Your task to perform on an android device: change text size in settings app Image 0: 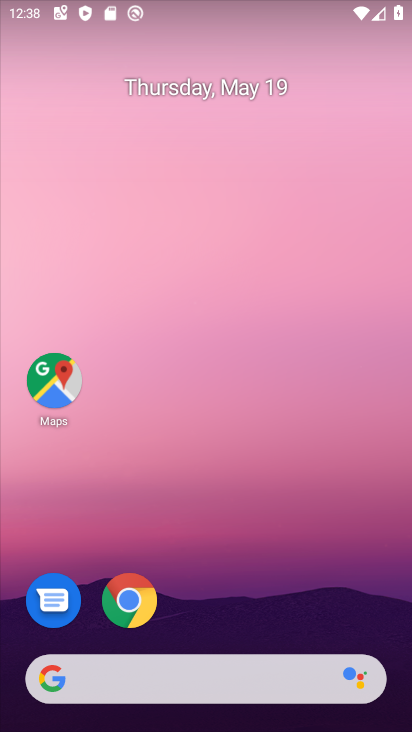
Step 0: drag from (274, 582) to (190, 174)
Your task to perform on an android device: change text size in settings app Image 1: 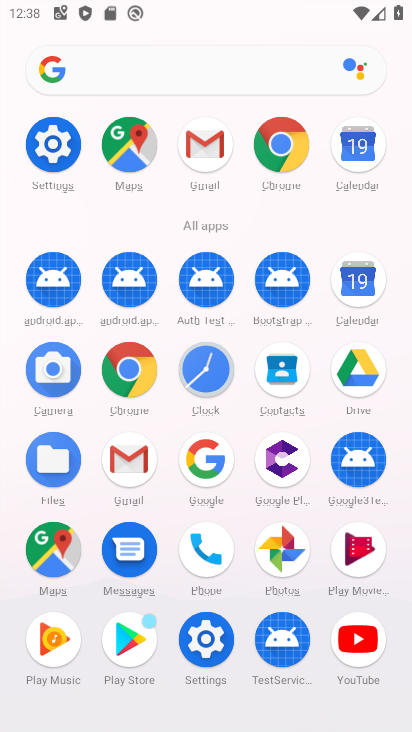
Step 1: click (66, 196)
Your task to perform on an android device: change text size in settings app Image 2: 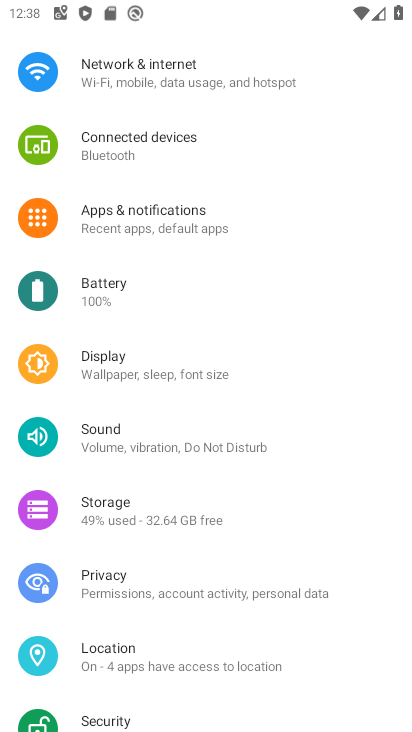
Step 2: drag from (132, 559) to (121, 326)
Your task to perform on an android device: change text size in settings app Image 3: 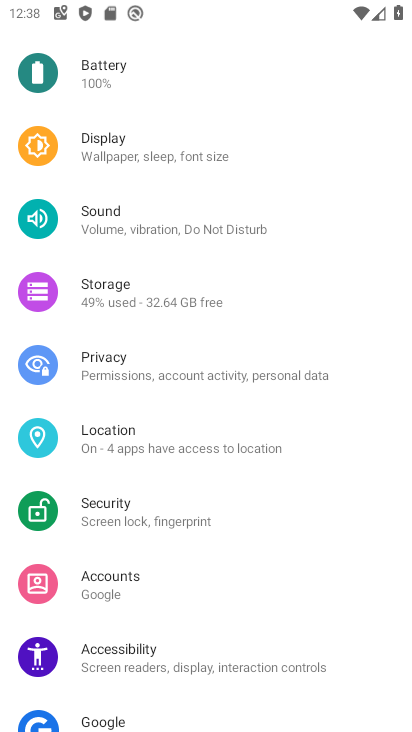
Step 3: click (132, 584)
Your task to perform on an android device: change text size in settings app Image 4: 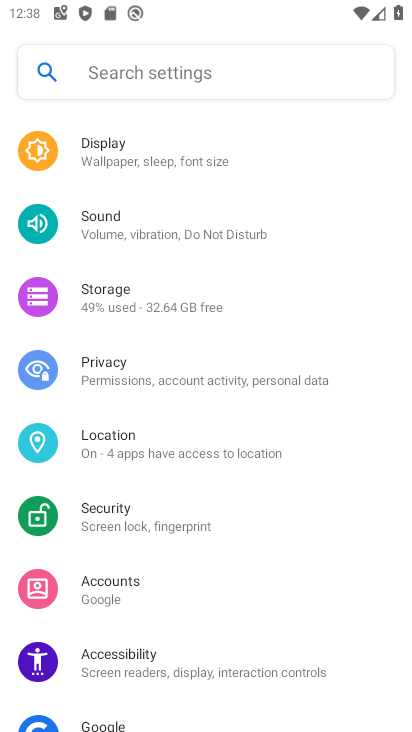
Step 4: click (105, 133)
Your task to perform on an android device: change text size in settings app Image 5: 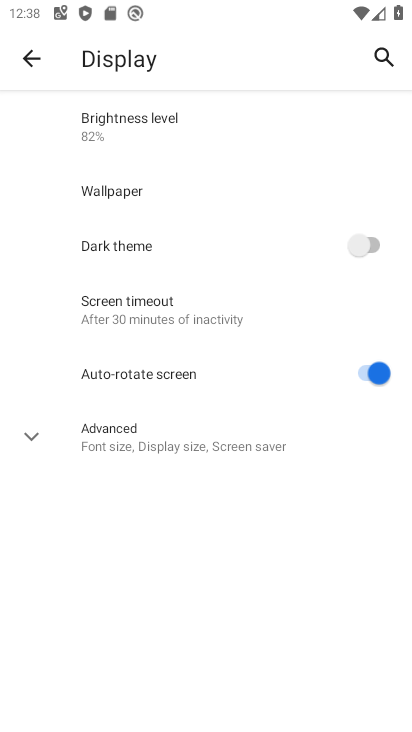
Step 5: click (148, 289)
Your task to perform on an android device: change text size in settings app Image 6: 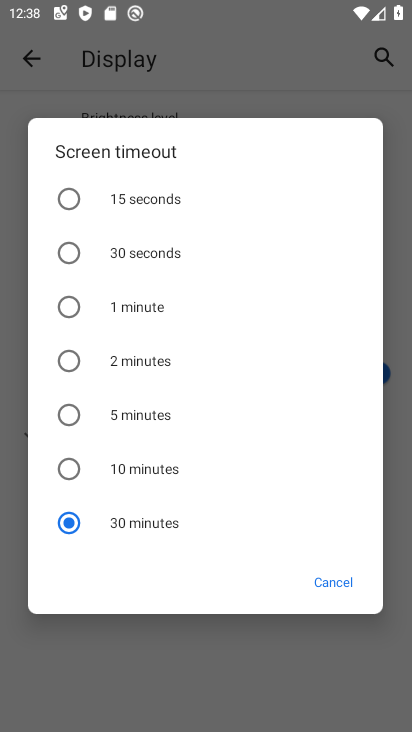
Step 6: click (303, 570)
Your task to perform on an android device: change text size in settings app Image 7: 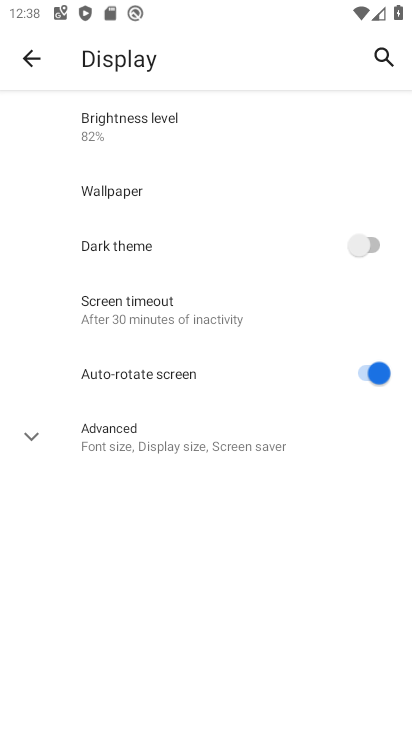
Step 7: click (149, 423)
Your task to perform on an android device: change text size in settings app Image 8: 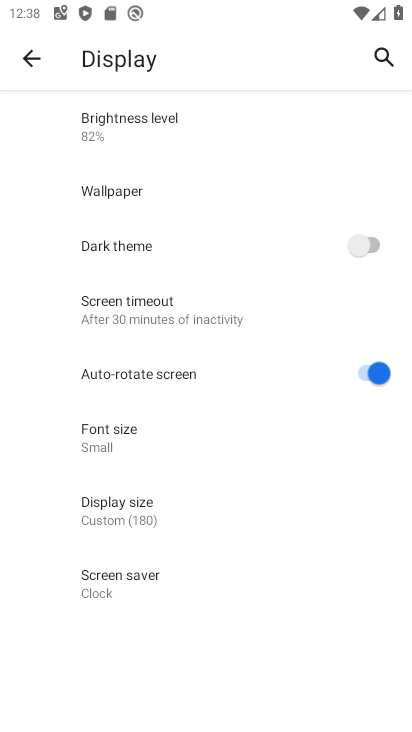
Step 8: click (143, 456)
Your task to perform on an android device: change text size in settings app Image 9: 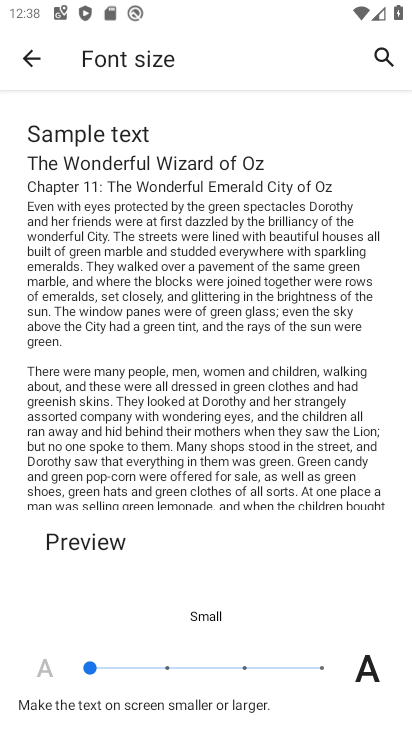
Step 9: click (170, 652)
Your task to perform on an android device: change text size in settings app Image 10: 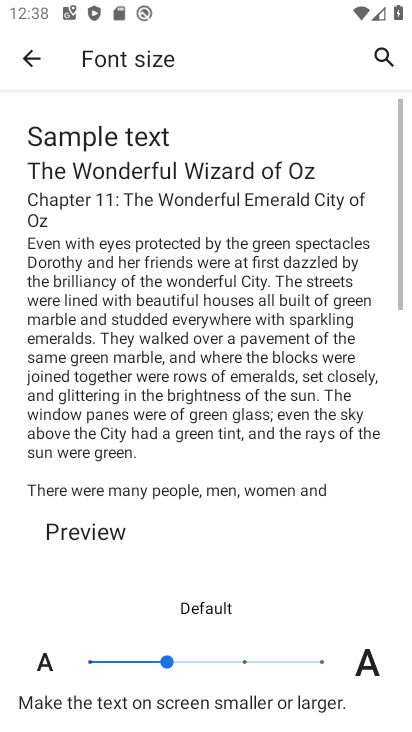
Step 10: task complete